Your task to perform on an android device: Open the map Image 0: 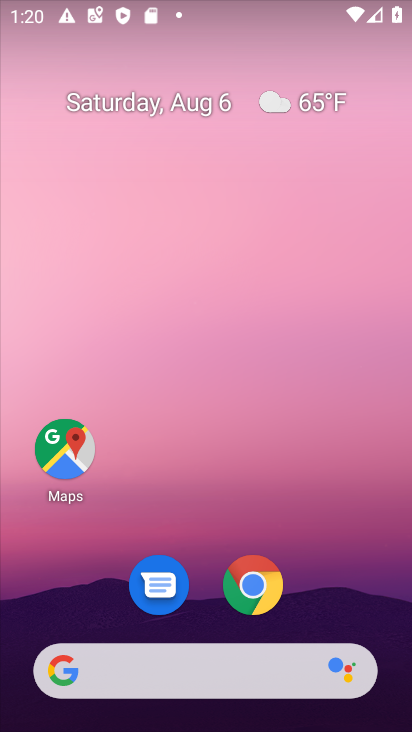
Step 0: click (60, 445)
Your task to perform on an android device: Open the map Image 1: 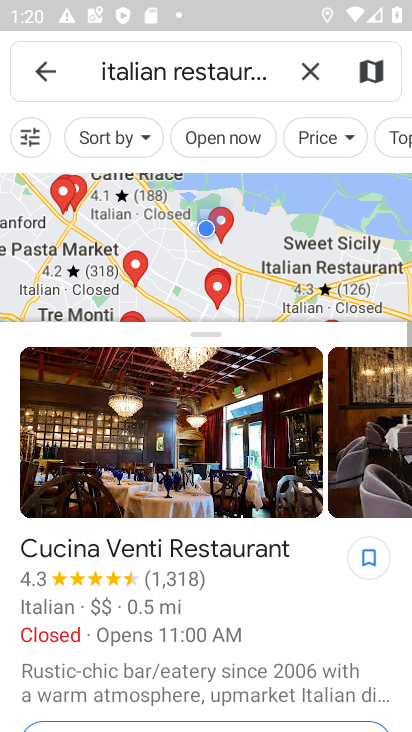
Step 1: click (307, 62)
Your task to perform on an android device: Open the map Image 2: 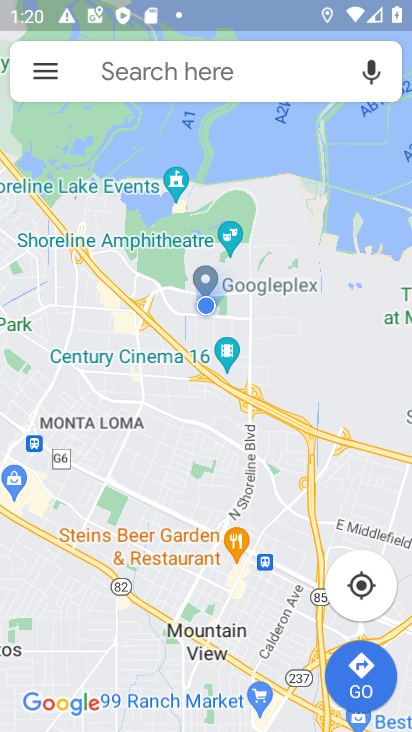
Step 2: task complete